Your task to perform on an android device: turn smart compose on in the gmail app Image 0: 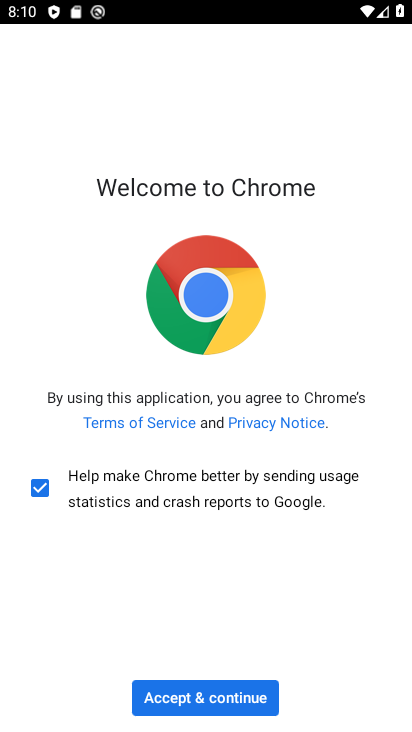
Step 0: press home button
Your task to perform on an android device: turn smart compose on in the gmail app Image 1: 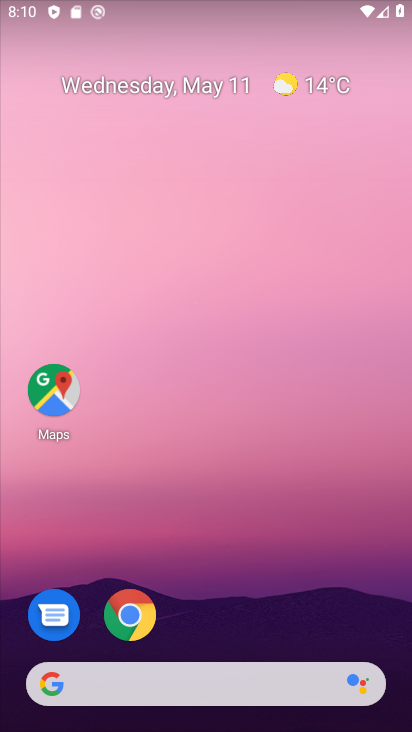
Step 1: drag from (346, 539) to (299, 203)
Your task to perform on an android device: turn smart compose on in the gmail app Image 2: 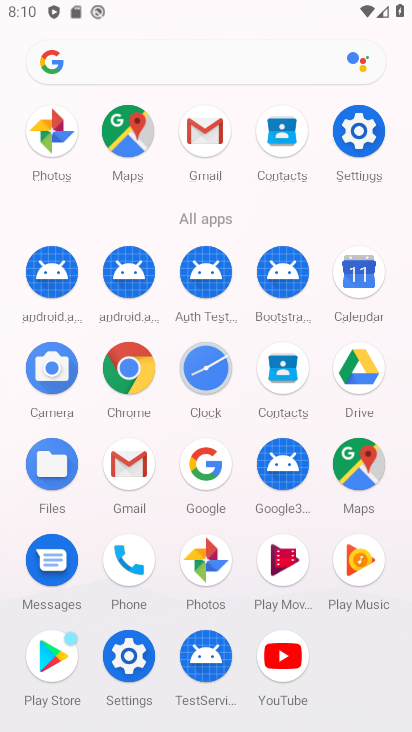
Step 2: click (134, 475)
Your task to perform on an android device: turn smart compose on in the gmail app Image 3: 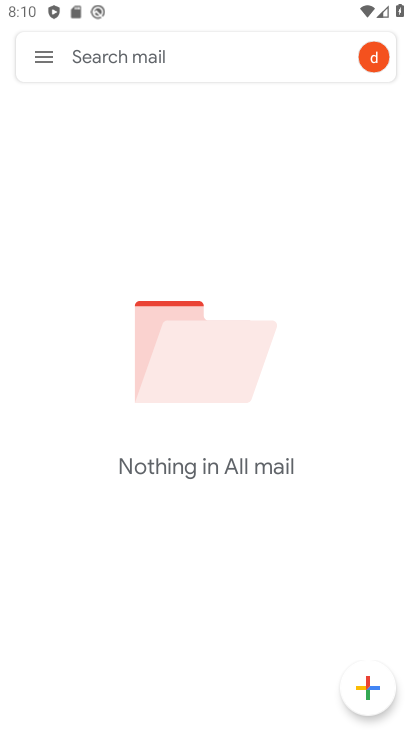
Step 3: click (37, 64)
Your task to perform on an android device: turn smart compose on in the gmail app Image 4: 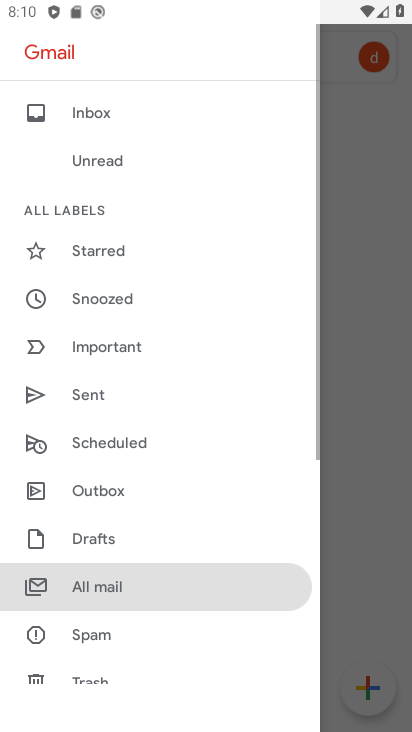
Step 4: click (37, 64)
Your task to perform on an android device: turn smart compose on in the gmail app Image 5: 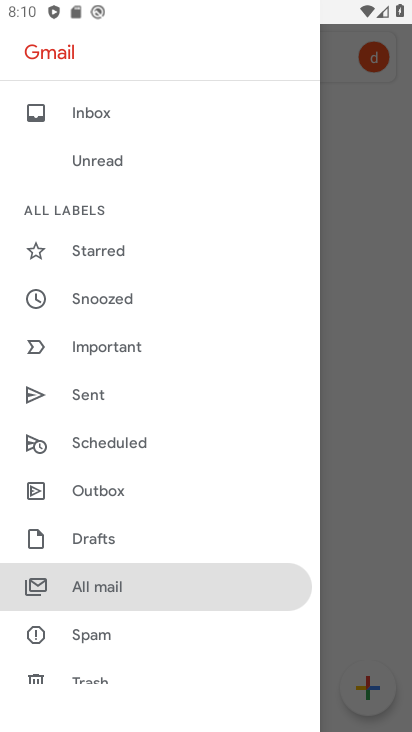
Step 5: drag from (203, 590) to (183, 347)
Your task to perform on an android device: turn smart compose on in the gmail app Image 6: 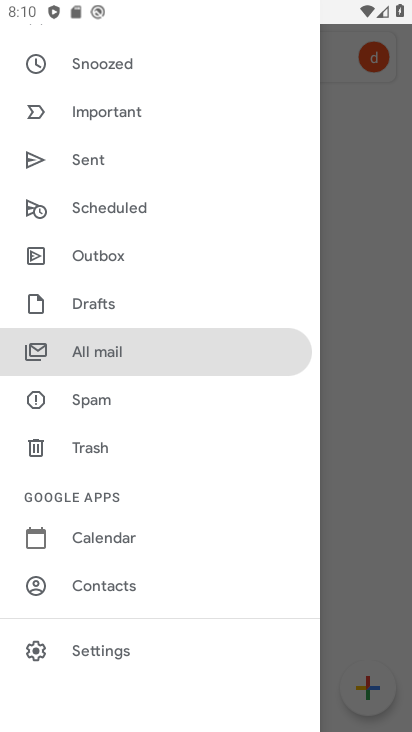
Step 6: click (101, 659)
Your task to perform on an android device: turn smart compose on in the gmail app Image 7: 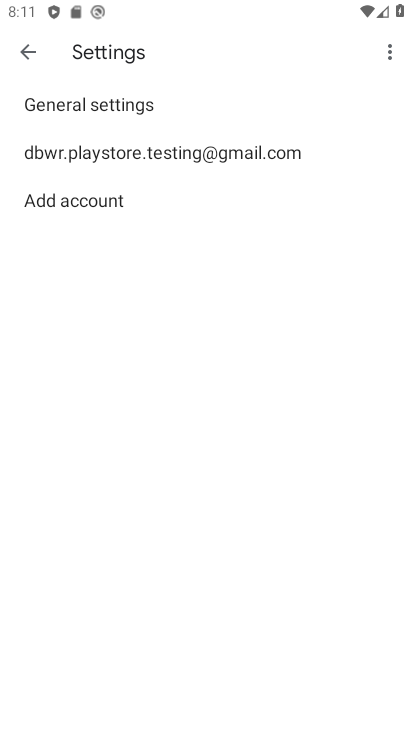
Step 7: click (111, 155)
Your task to perform on an android device: turn smart compose on in the gmail app Image 8: 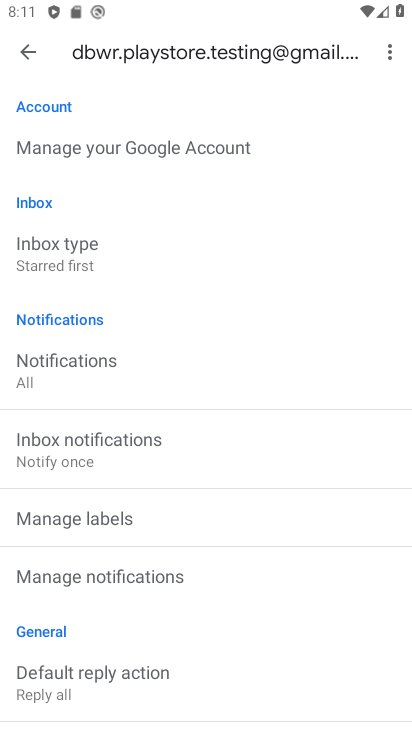
Step 8: task complete